Your task to perform on an android device: show emergency info Image 0: 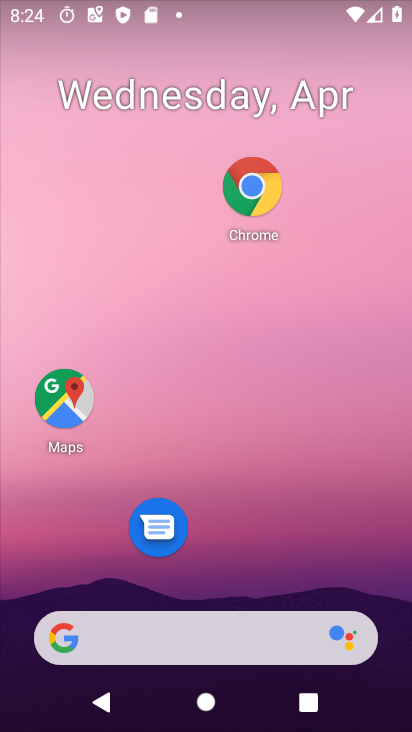
Step 0: drag from (249, 377) to (284, 232)
Your task to perform on an android device: show emergency info Image 1: 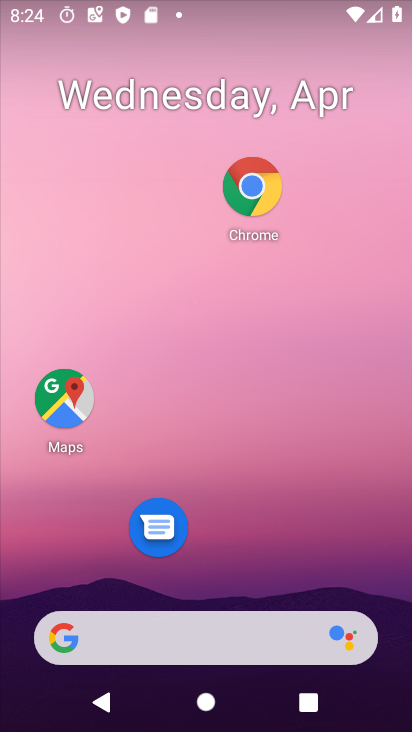
Step 1: drag from (285, 500) to (325, 166)
Your task to perform on an android device: show emergency info Image 2: 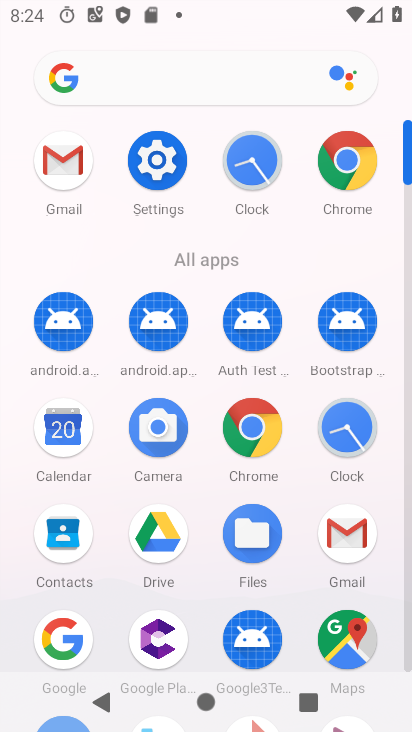
Step 2: click (142, 156)
Your task to perform on an android device: show emergency info Image 3: 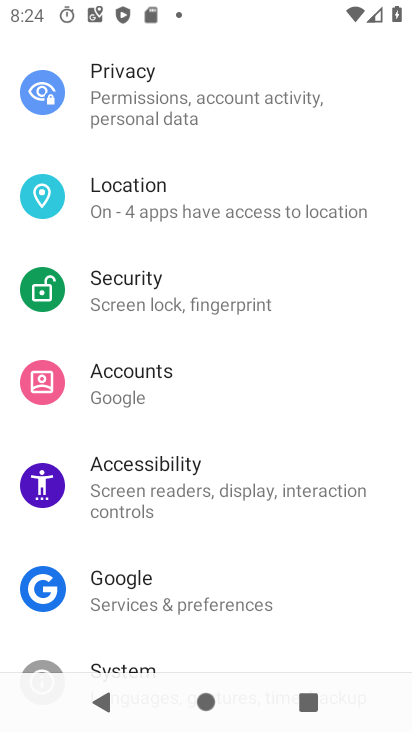
Step 3: drag from (301, 568) to (357, 102)
Your task to perform on an android device: show emergency info Image 4: 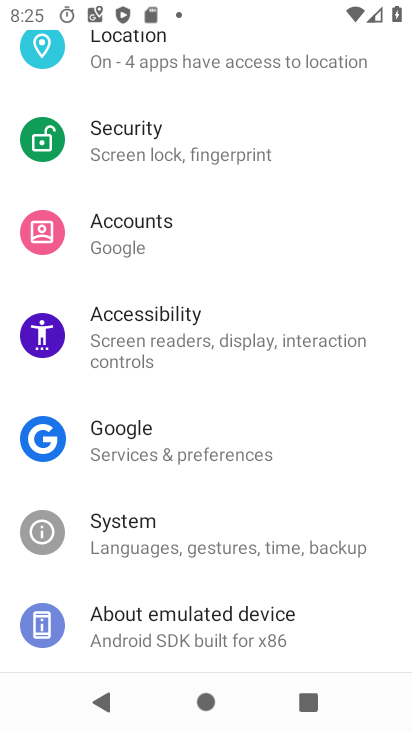
Step 4: click (250, 620)
Your task to perform on an android device: show emergency info Image 5: 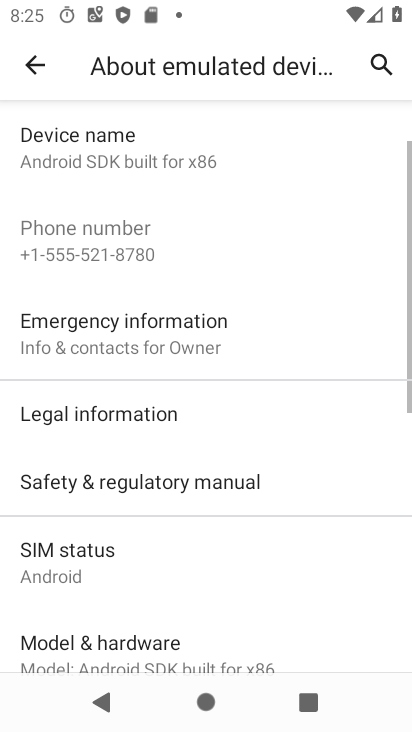
Step 5: click (188, 326)
Your task to perform on an android device: show emergency info Image 6: 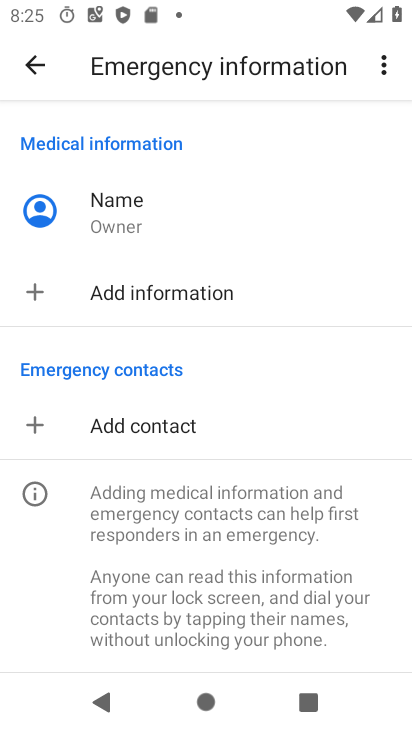
Step 6: task complete